Your task to perform on an android device: Open calendar and show me the third week of next month Image 0: 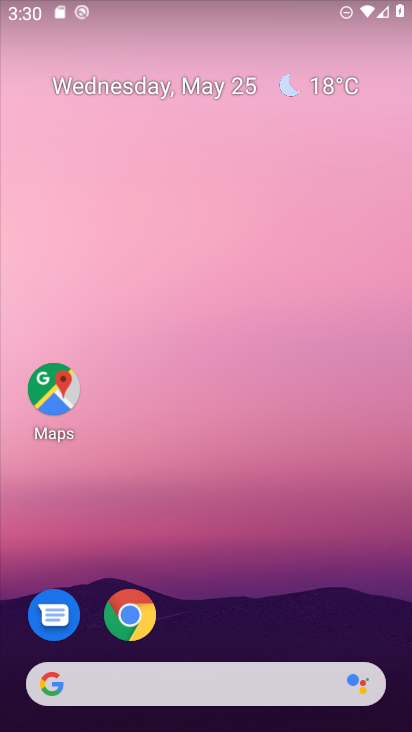
Step 0: drag from (254, 527) to (305, 71)
Your task to perform on an android device: Open calendar and show me the third week of next month Image 1: 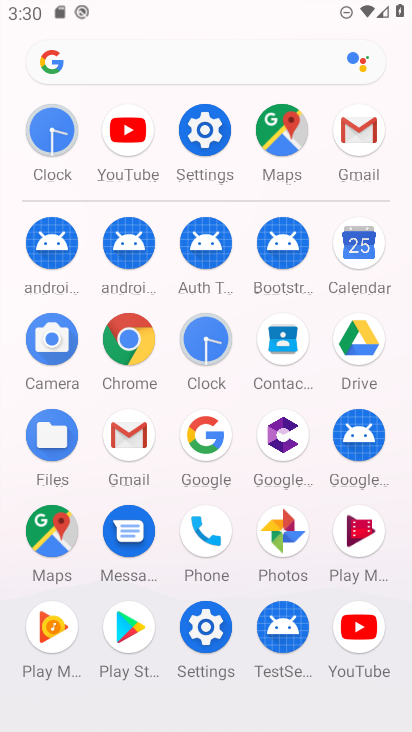
Step 1: click (349, 249)
Your task to perform on an android device: Open calendar and show me the third week of next month Image 2: 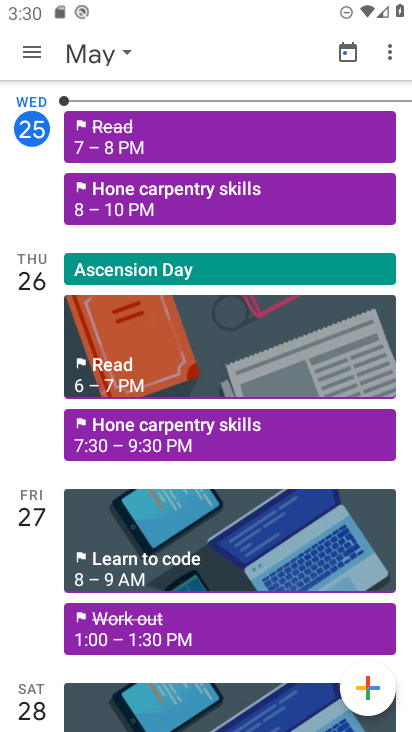
Step 2: click (37, 50)
Your task to perform on an android device: Open calendar and show me the third week of next month Image 3: 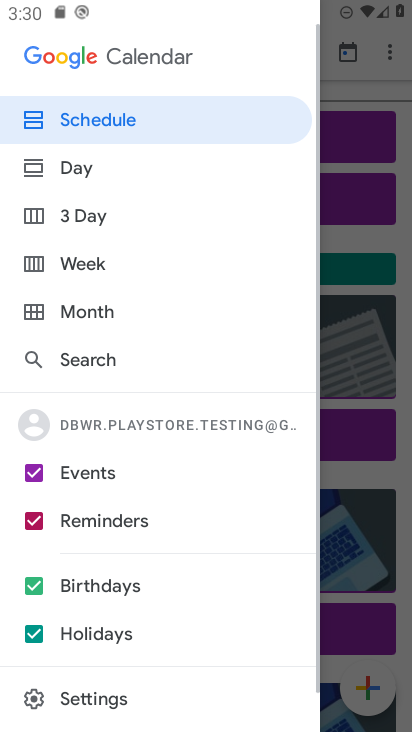
Step 3: click (74, 299)
Your task to perform on an android device: Open calendar and show me the third week of next month Image 4: 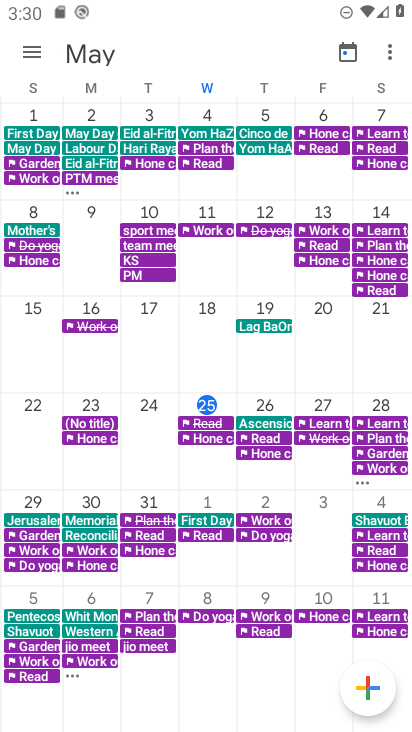
Step 4: drag from (326, 360) to (3, 472)
Your task to perform on an android device: Open calendar and show me the third week of next month Image 5: 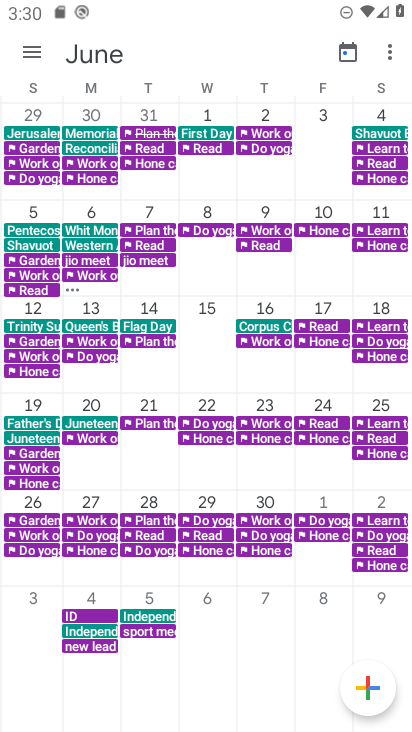
Step 5: click (34, 399)
Your task to perform on an android device: Open calendar and show me the third week of next month Image 6: 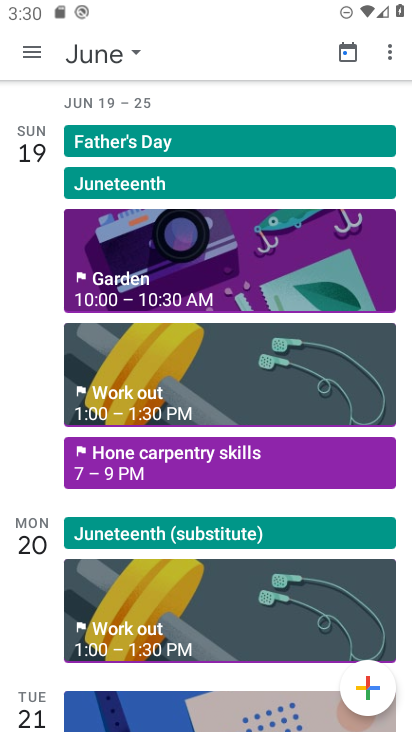
Step 6: click (22, 47)
Your task to perform on an android device: Open calendar and show me the third week of next month Image 7: 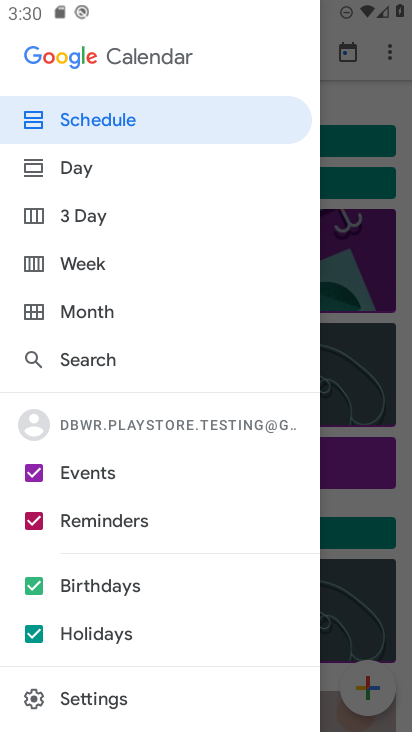
Step 7: click (59, 259)
Your task to perform on an android device: Open calendar and show me the third week of next month Image 8: 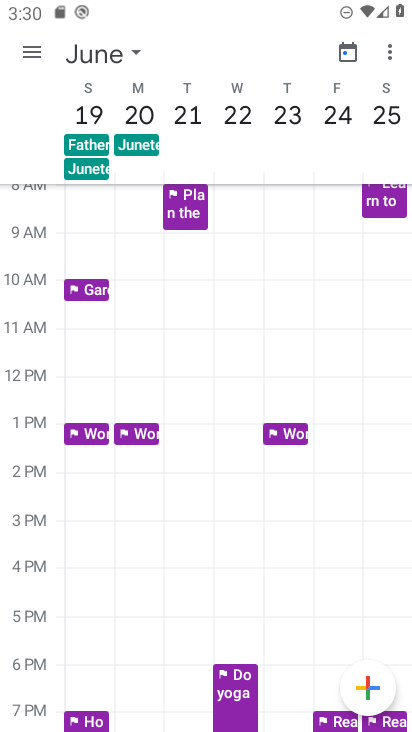
Step 8: task complete